Your task to perform on an android device: change the clock display to show seconds Image 0: 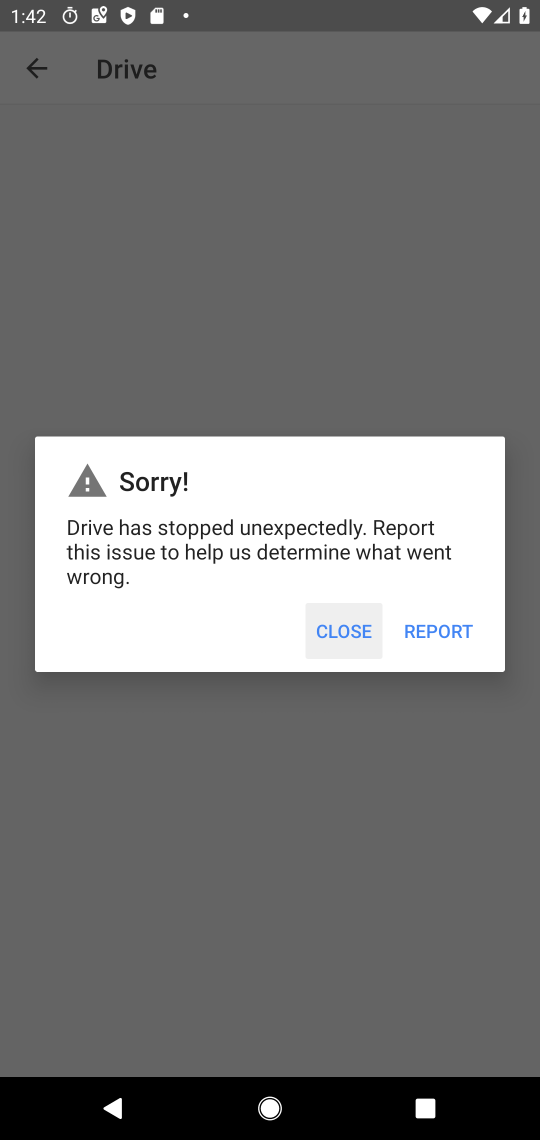
Step 0: press home button
Your task to perform on an android device: change the clock display to show seconds Image 1: 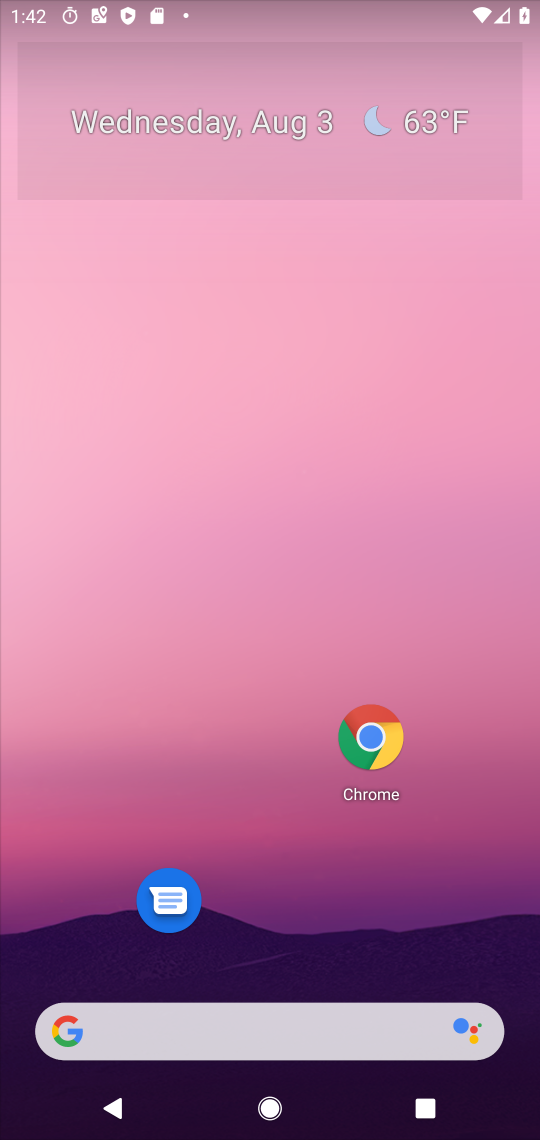
Step 1: drag from (257, 922) to (232, 121)
Your task to perform on an android device: change the clock display to show seconds Image 2: 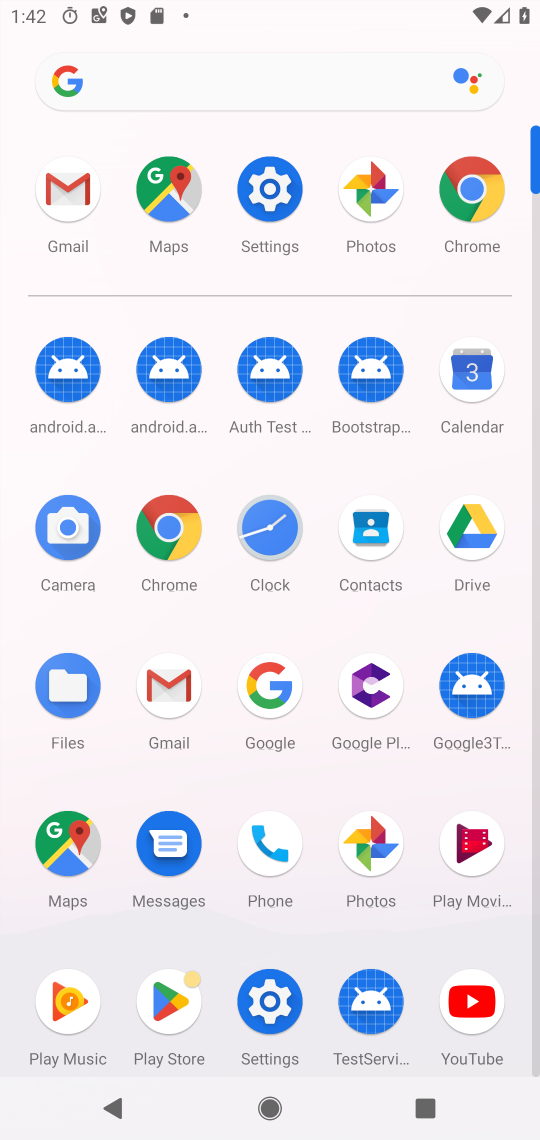
Step 2: click (273, 523)
Your task to perform on an android device: change the clock display to show seconds Image 3: 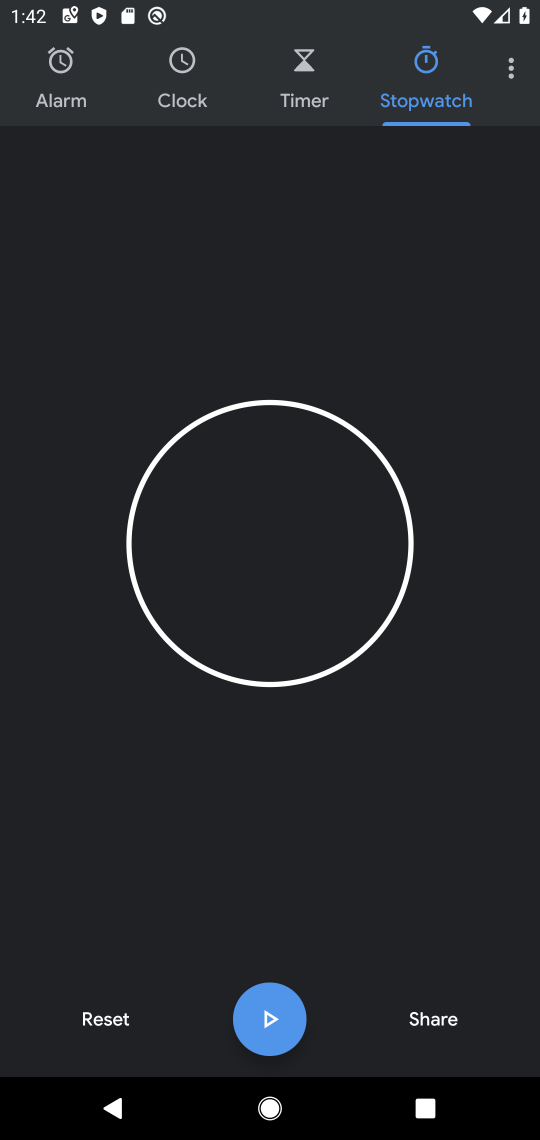
Step 3: click (517, 69)
Your task to perform on an android device: change the clock display to show seconds Image 4: 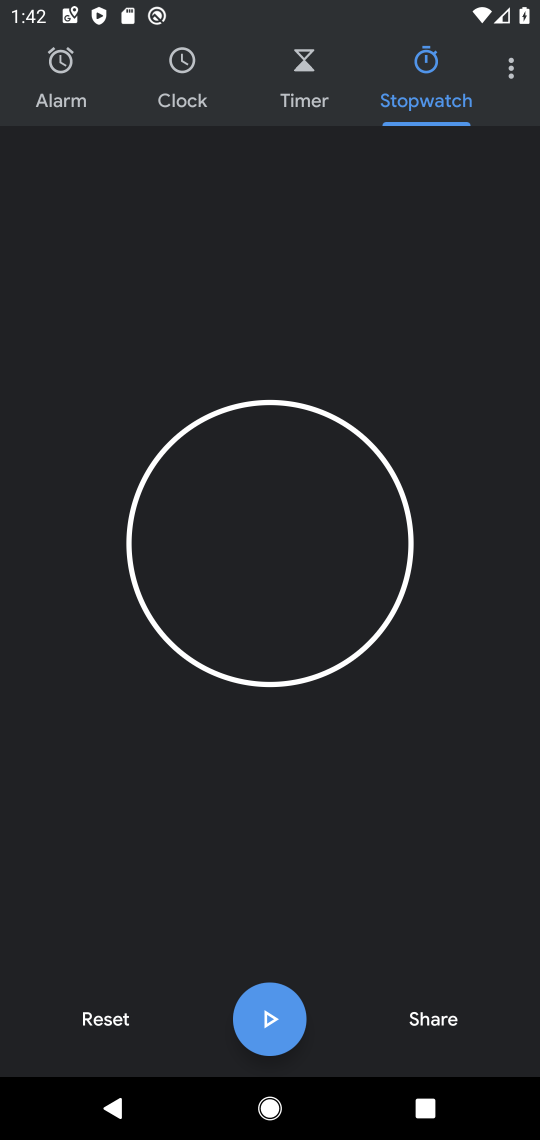
Step 4: click (508, 72)
Your task to perform on an android device: change the clock display to show seconds Image 5: 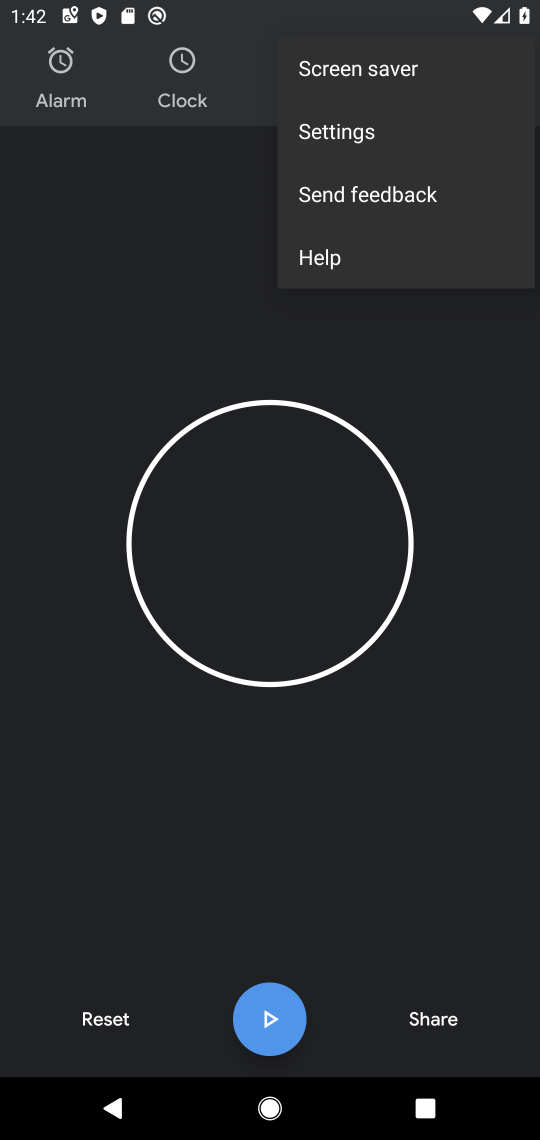
Step 5: click (399, 127)
Your task to perform on an android device: change the clock display to show seconds Image 6: 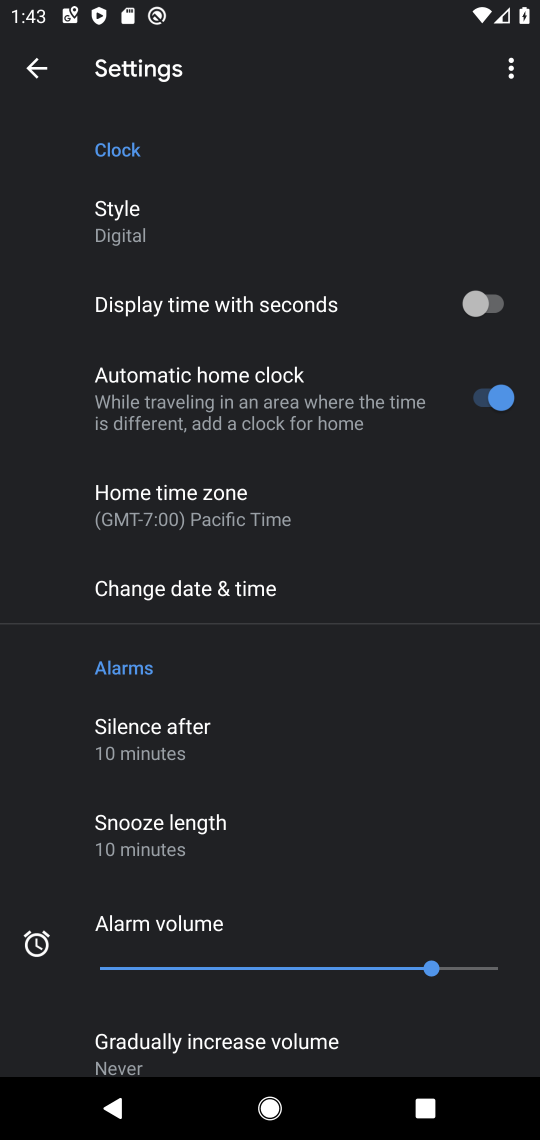
Step 6: click (462, 301)
Your task to perform on an android device: change the clock display to show seconds Image 7: 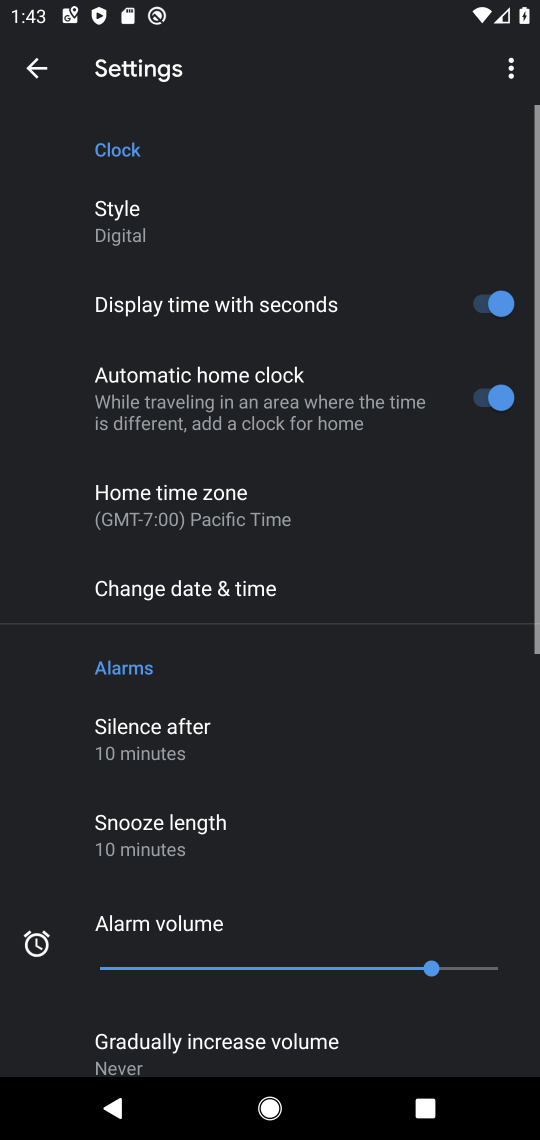
Step 7: task complete